Your task to perform on an android device: turn off data saver in the chrome app Image 0: 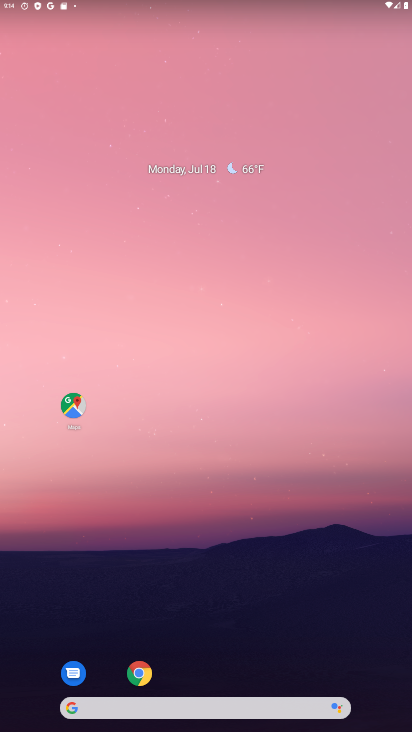
Step 0: click (142, 676)
Your task to perform on an android device: turn off data saver in the chrome app Image 1: 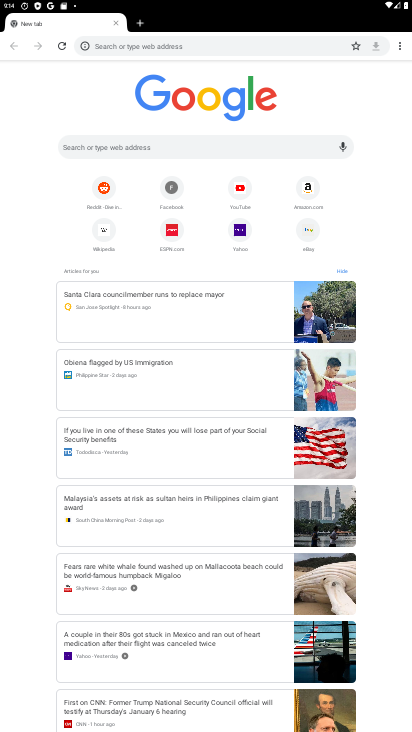
Step 1: click (398, 45)
Your task to perform on an android device: turn off data saver in the chrome app Image 2: 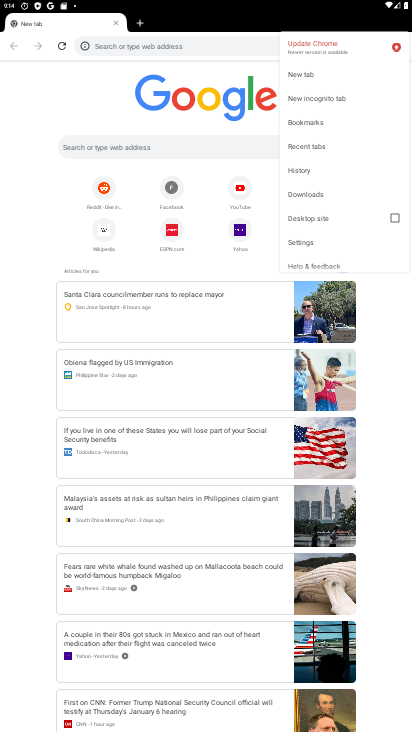
Step 2: click (312, 242)
Your task to perform on an android device: turn off data saver in the chrome app Image 3: 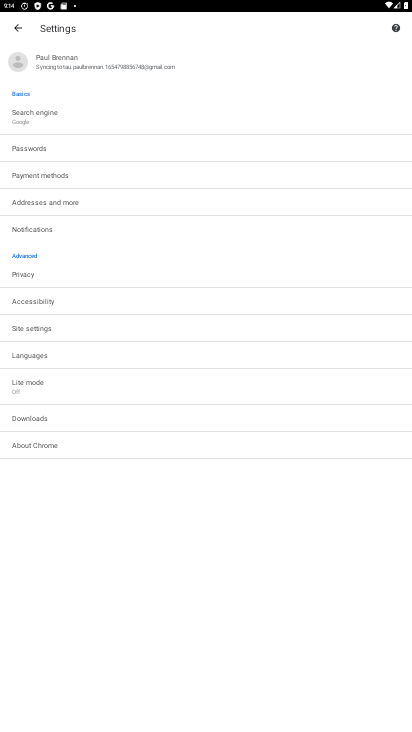
Step 3: click (42, 388)
Your task to perform on an android device: turn off data saver in the chrome app Image 4: 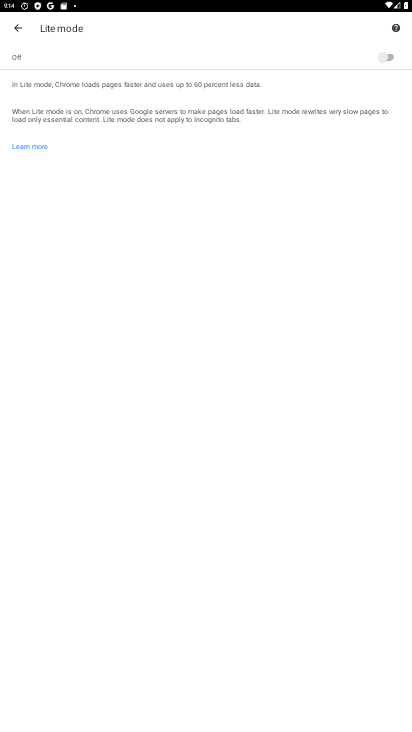
Step 4: task complete